Your task to perform on an android device: create a new album in the google photos Image 0: 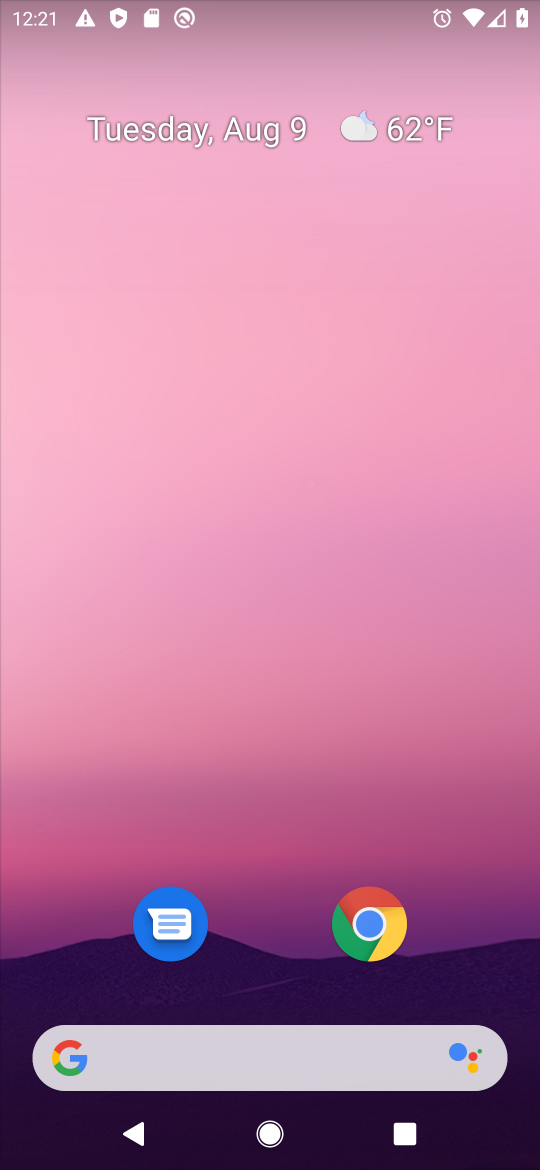
Step 0: drag from (297, 999) to (283, 207)
Your task to perform on an android device: create a new album in the google photos Image 1: 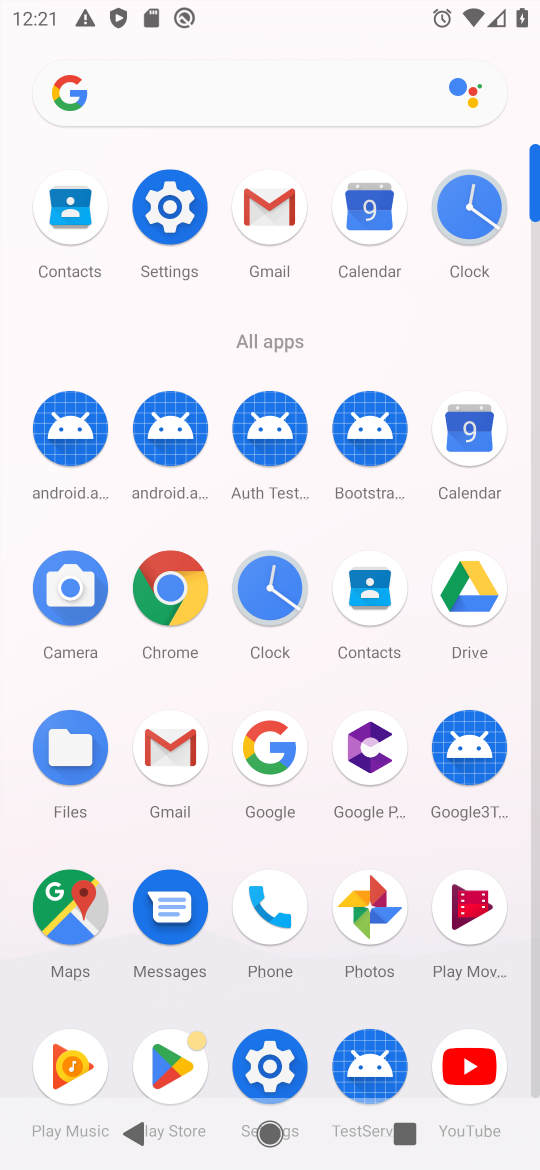
Step 1: click (349, 966)
Your task to perform on an android device: create a new album in the google photos Image 2: 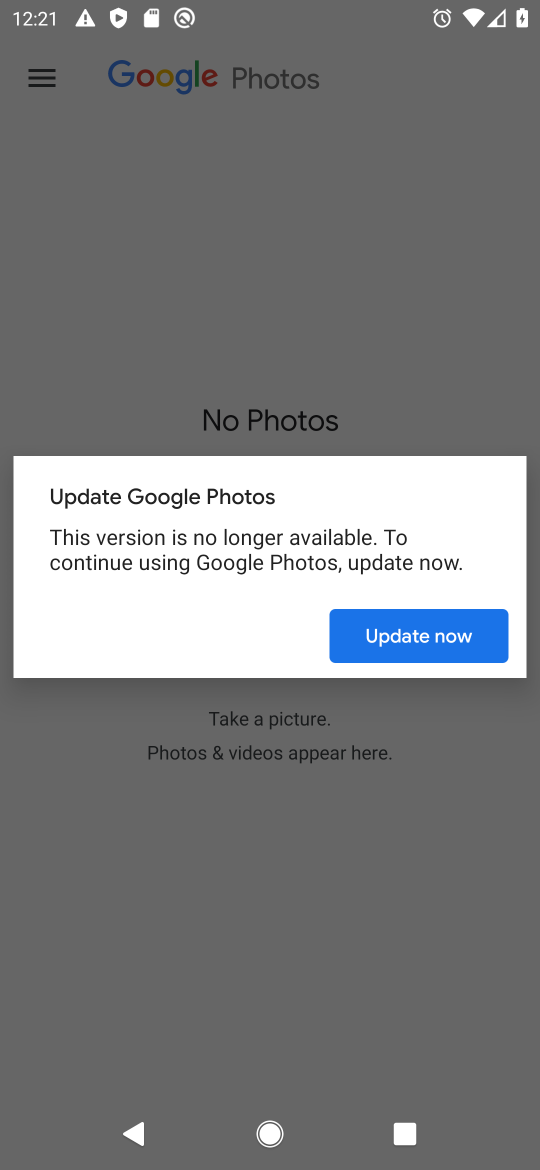
Step 2: click (354, 641)
Your task to perform on an android device: create a new album in the google photos Image 3: 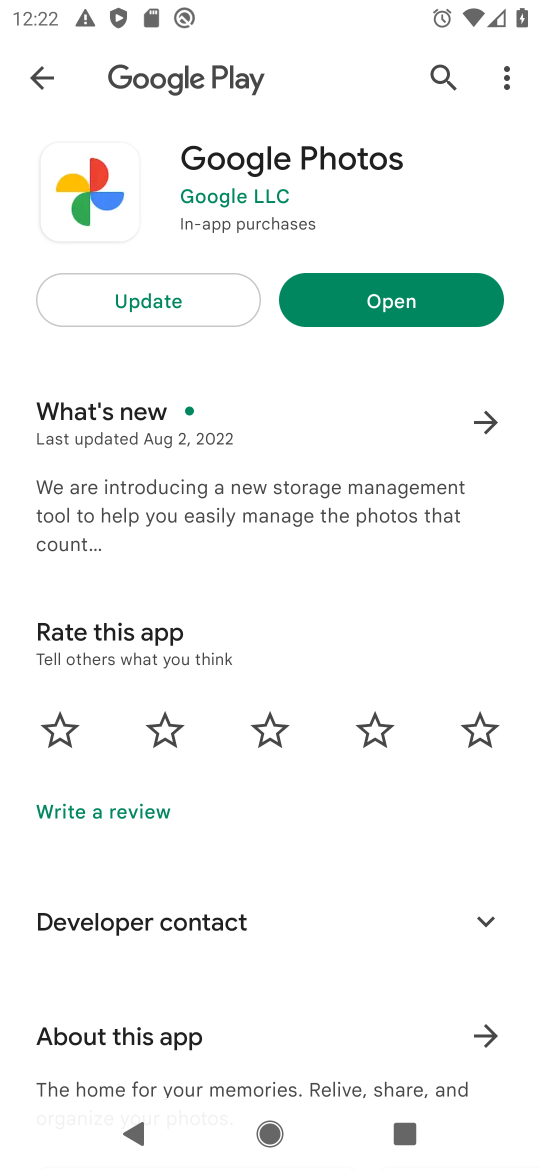
Step 3: click (147, 292)
Your task to perform on an android device: create a new album in the google photos Image 4: 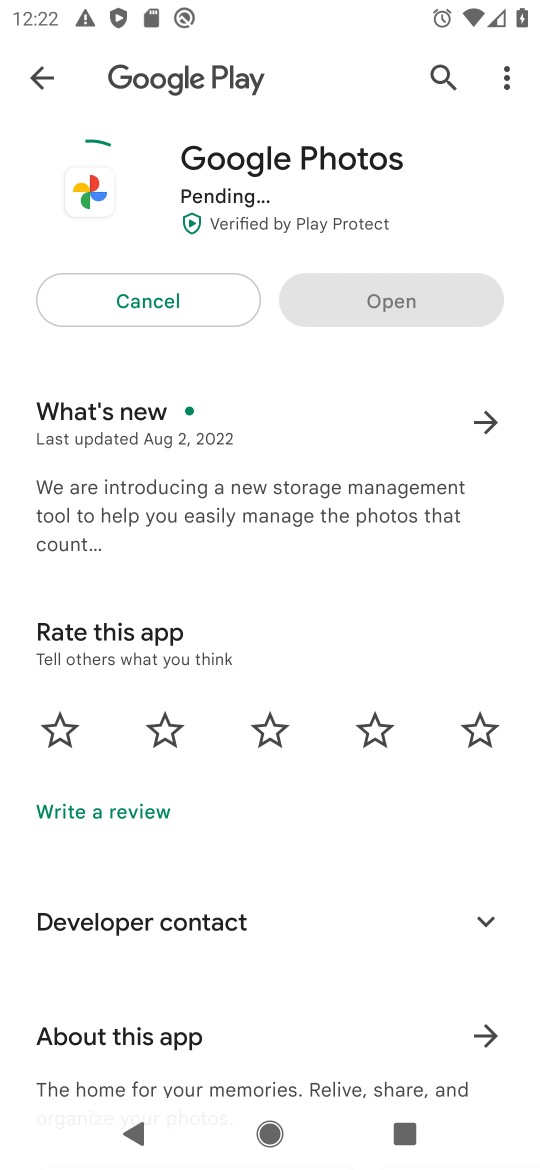
Step 4: task complete